Your task to perform on an android device: What is the news today? Image 0: 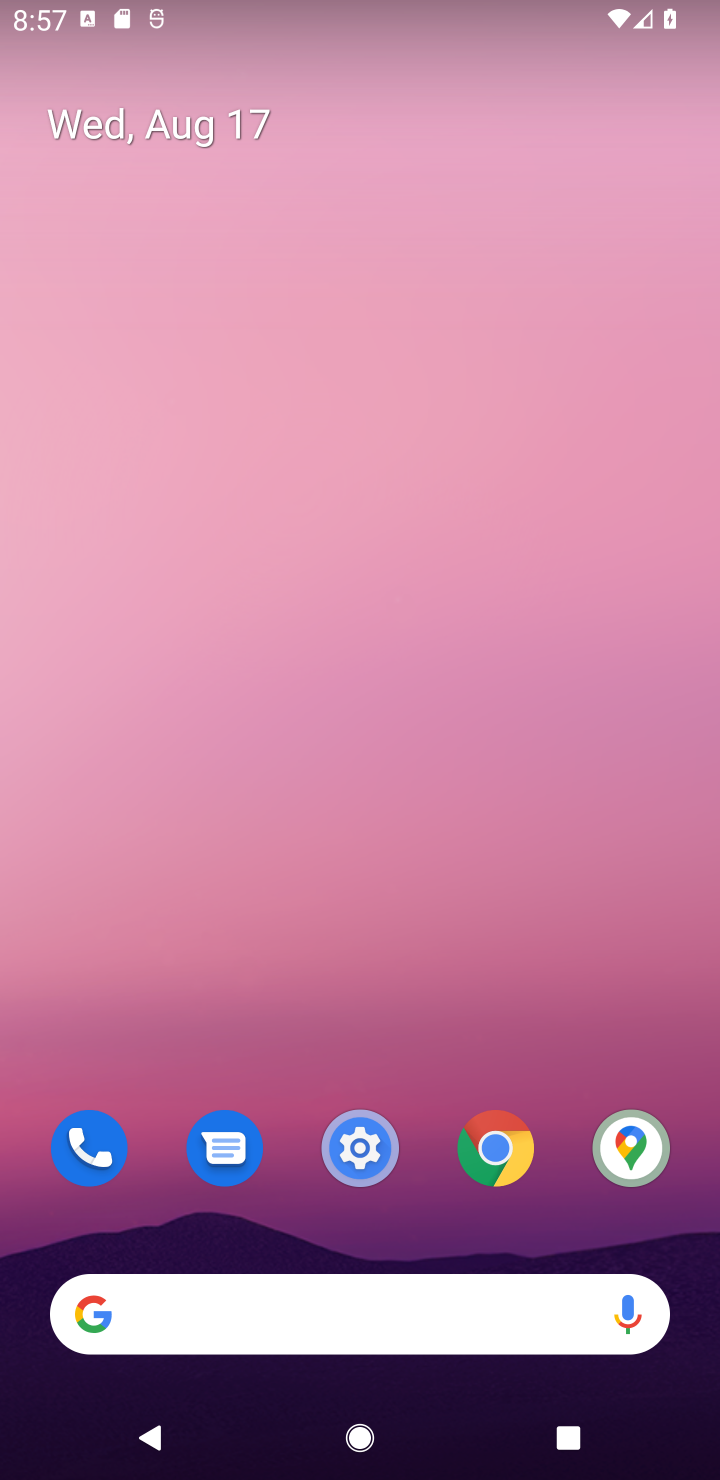
Step 0: drag from (25, 641) to (661, 635)
Your task to perform on an android device: What is the news today? Image 1: 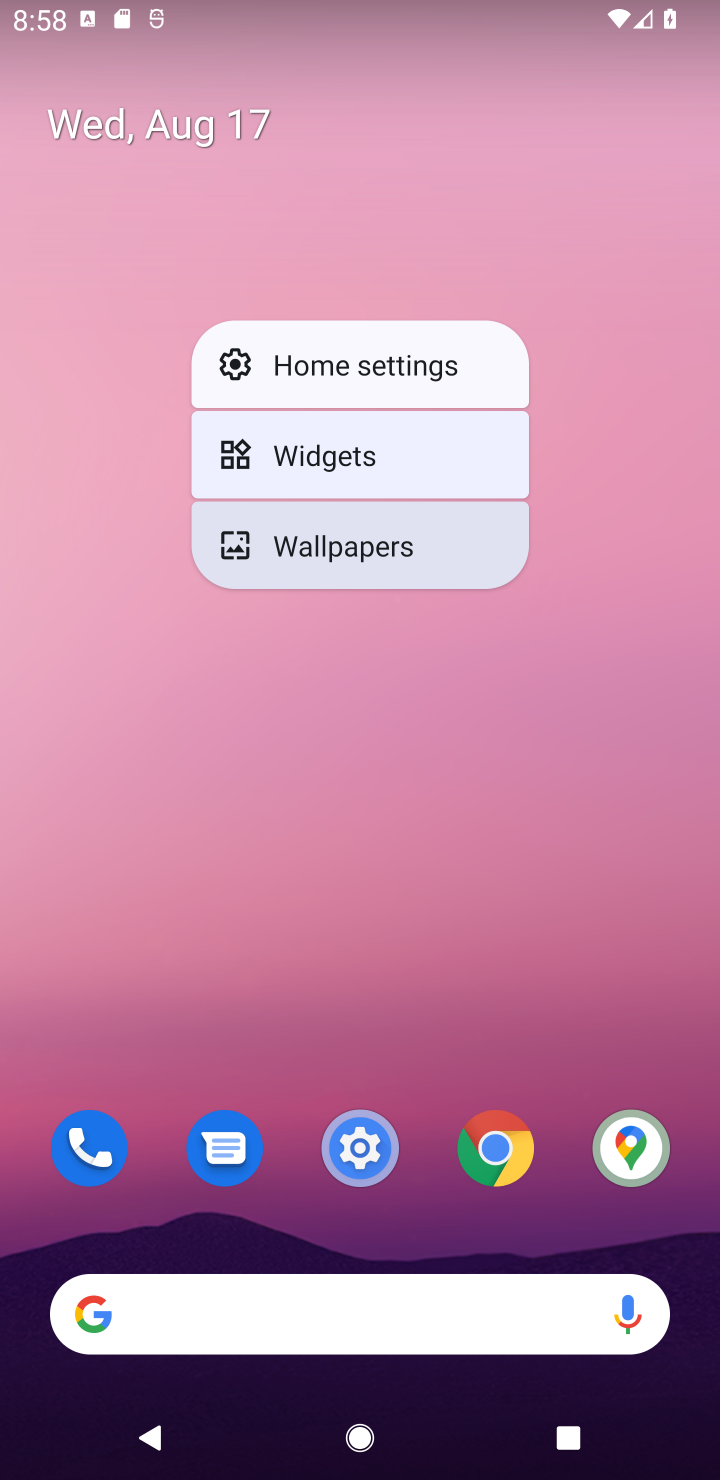
Step 1: task complete